Your task to perform on an android device: Open Youtube and go to "Your channel" Image 0: 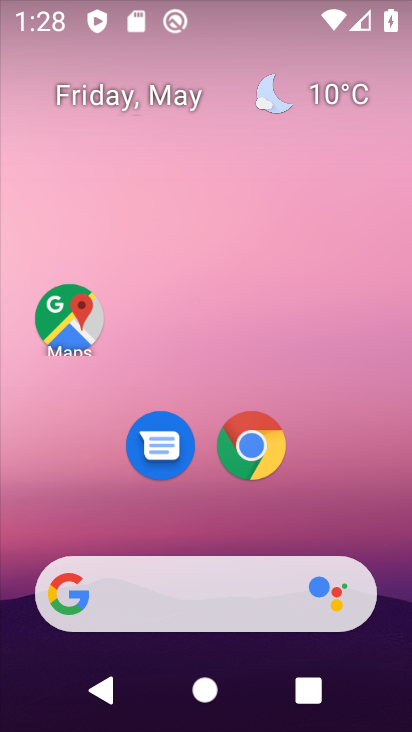
Step 0: drag from (343, 493) to (381, 34)
Your task to perform on an android device: Open Youtube and go to "Your channel" Image 1: 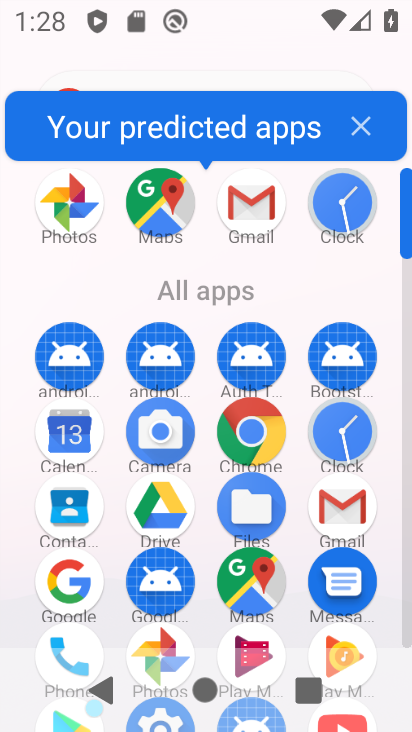
Step 1: drag from (290, 598) to (367, 242)
Your task to perform on an android device: Open Youtube and go to "Your channel" Image 2: 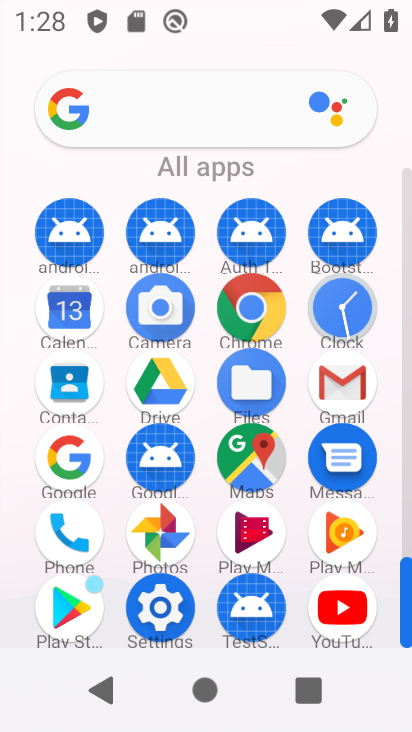
Step 2: click (348, 611)
Your task to perform on an android device: Open Youtube and go to "Your channel" Image 3: 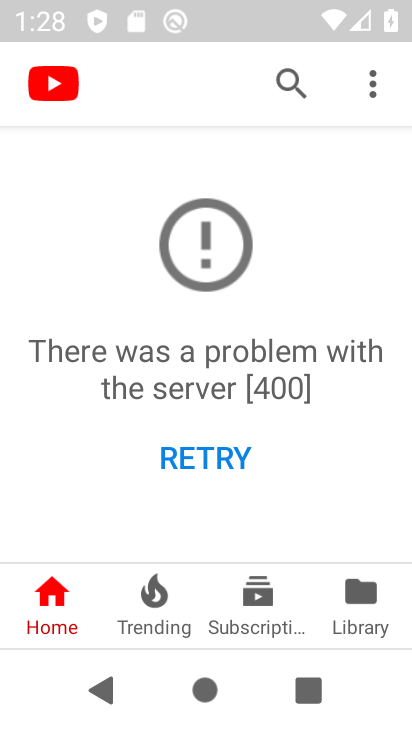
Step 3: click (362, 596)
Your task to perform on an android device: Open Youtube and go to "Your channel" Image 4: 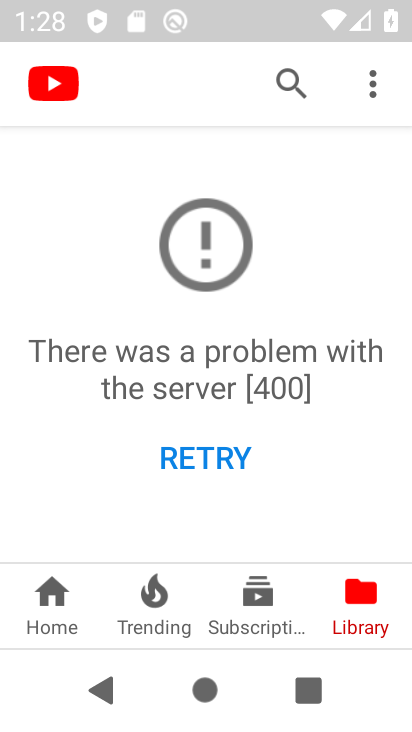
Step 4: click (215, 603)
Your task to perform on an android device: Open Youtube and go to "Your channel" Image 5: 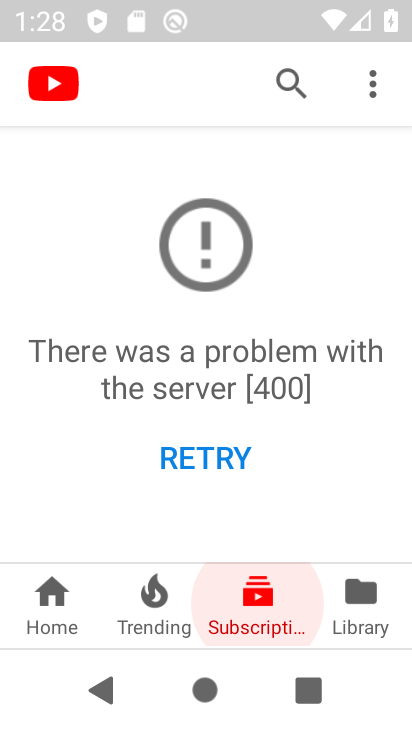
Step 5: click (135, 592)
Your task to perform on an android device: Open Youtube and go to "Your channel" Image 6: 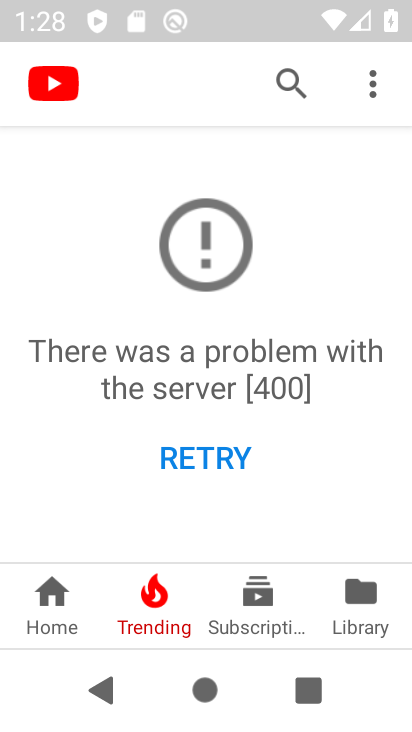
Step 6: task complete